Your task to perform on an android device: find snoozed emails in the gmail app Image 0: 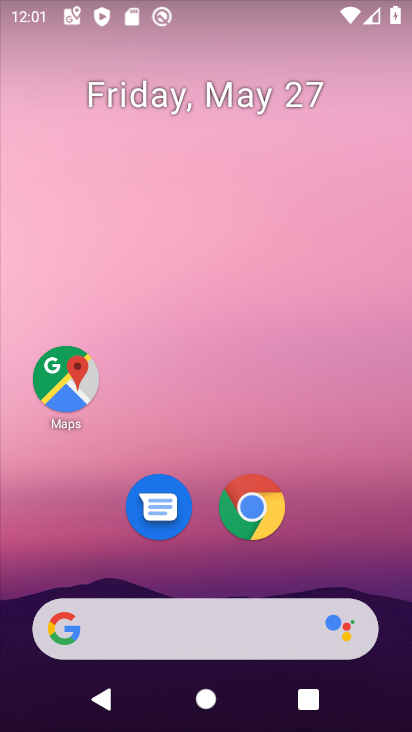
Step 0: drag from (362, 565) to (299, 175)
Your task to perform on an android device: find snoozed emails in the gmail app Image 1: 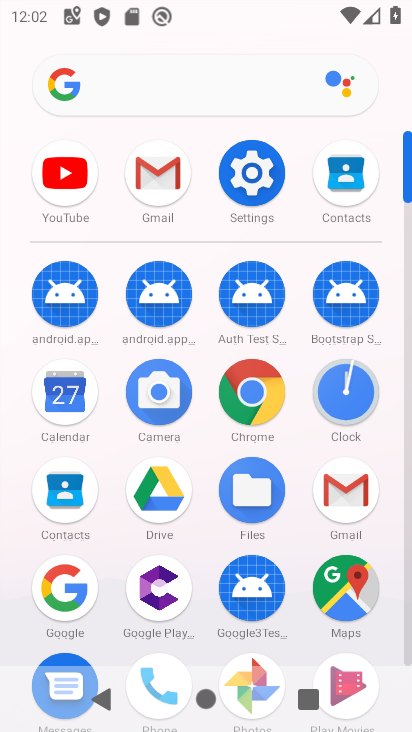
Step 1: click (341, 487)
Your task to perform on an android device: find snoozed emails in the gmail app Image 2: 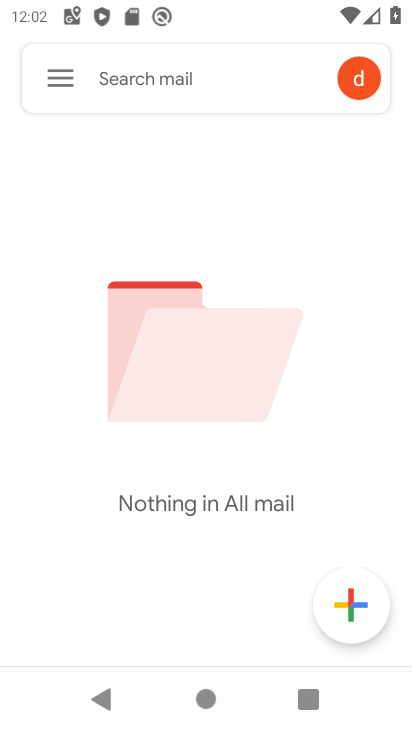
Step 2: click (58, 75)
Your task to perform on an android device: find snoozed emails in the gmail app Image 3: 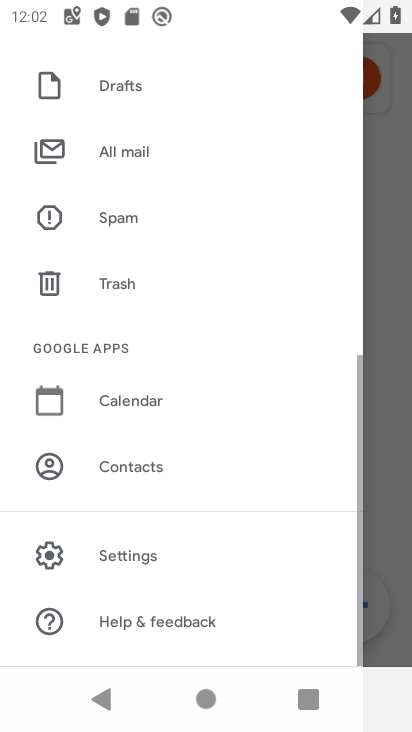
Step 3: drag from (112, 154) to (162, 598)
Your task to perform on an android device: find snoozed emails in the gmail app Image 4: 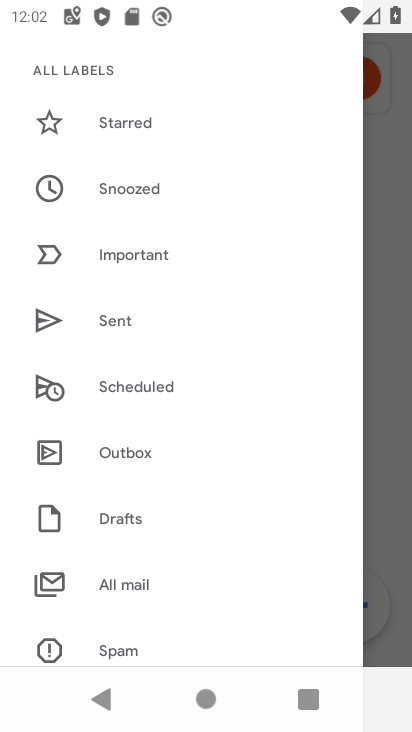
Step 4: click (131, 199)
Your task to perform on an android device: find snoozed emails in the gmail app Image 5: 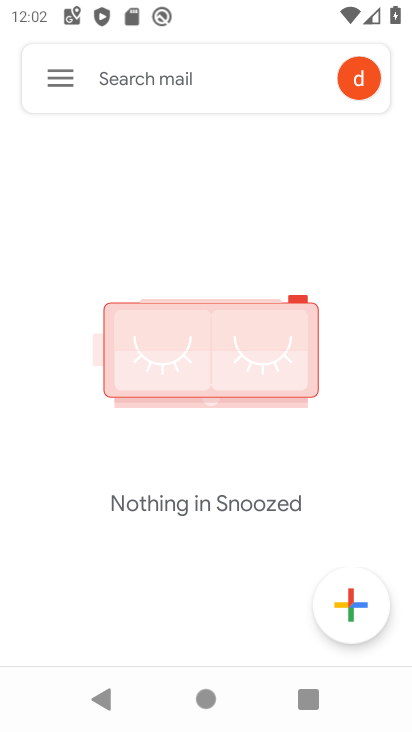
Step 5: task complete